Your task to perform on an android device: change the clock display to digital Image 0: 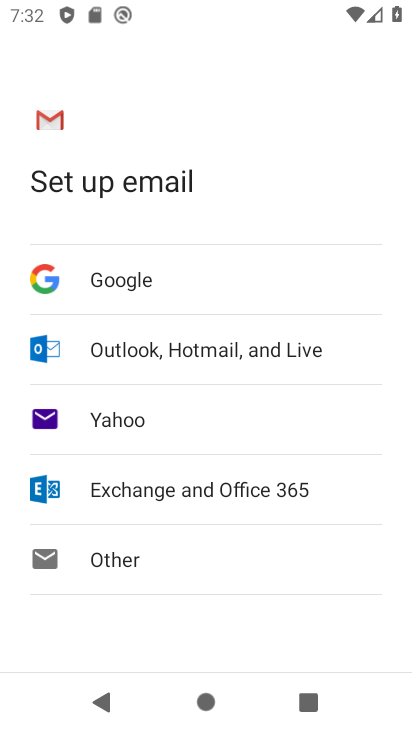
Step 0: press home button
Your task to perform on an android device: change the clock display to digital Image 1: 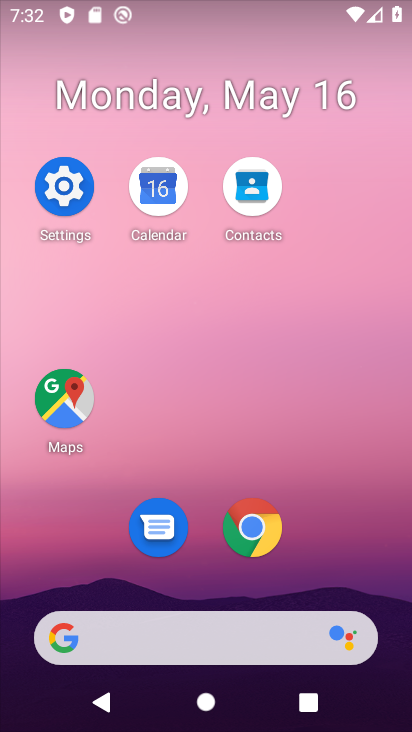
Step 1: drag from (328, 569) to (324, 81)
Your task to perform on an android device: change the clock display to digital Image 2: 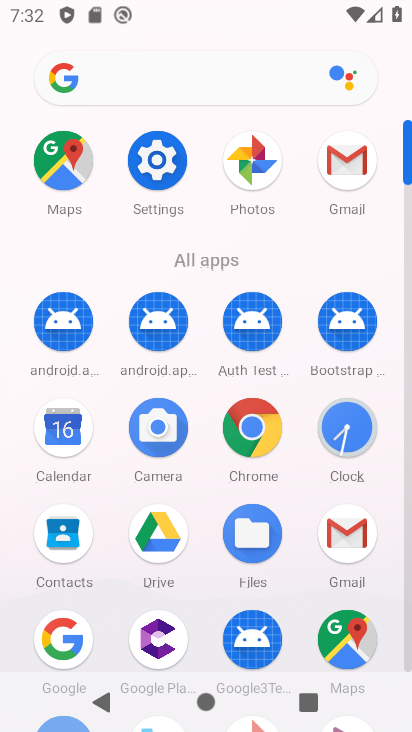
Step 2: drag from (359, 422) to (313, 192)
Your task to perform on an android device: change the clock display to digital Image 3: 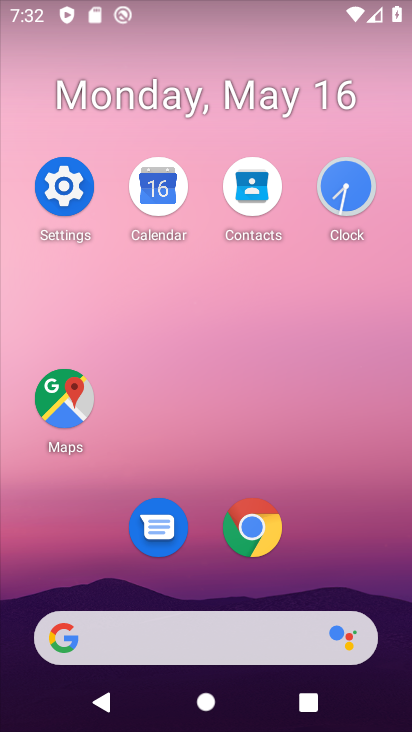
Step 3: click (332, 183)
Your task to perform on an android device: change the clock display to digital Image 4: 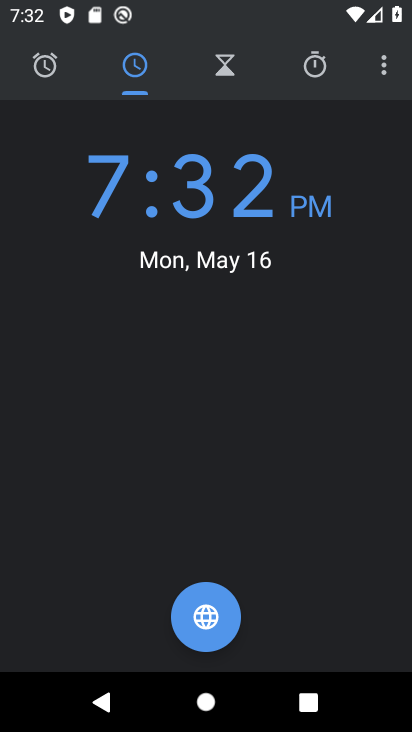
Step 4: click (388, 80)
Your task to perform on an android device: change the clock display to digital Image 5: 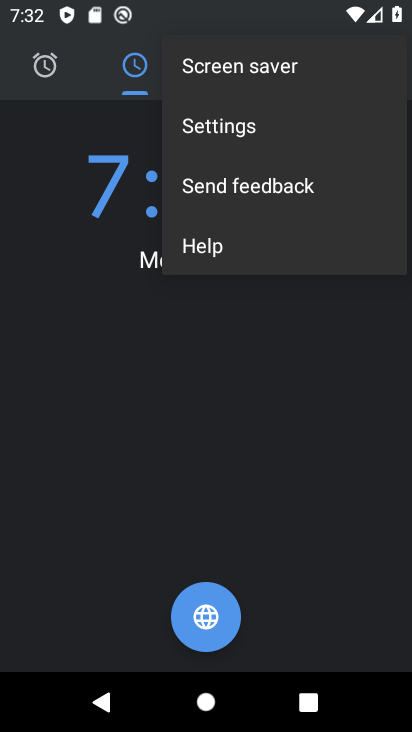
Step 5: click (220, 135)
Your task to perform on an android device: change the clock display to digital Image 6: 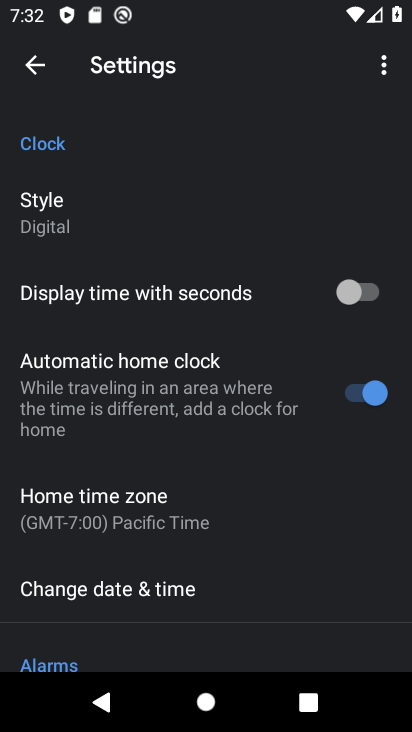
Step 6: task complete